Your task to perform on an android device: Search for bose soundlink on bestbuy.com, select the first entry, add it to the cart, then select checkout. Image 0: 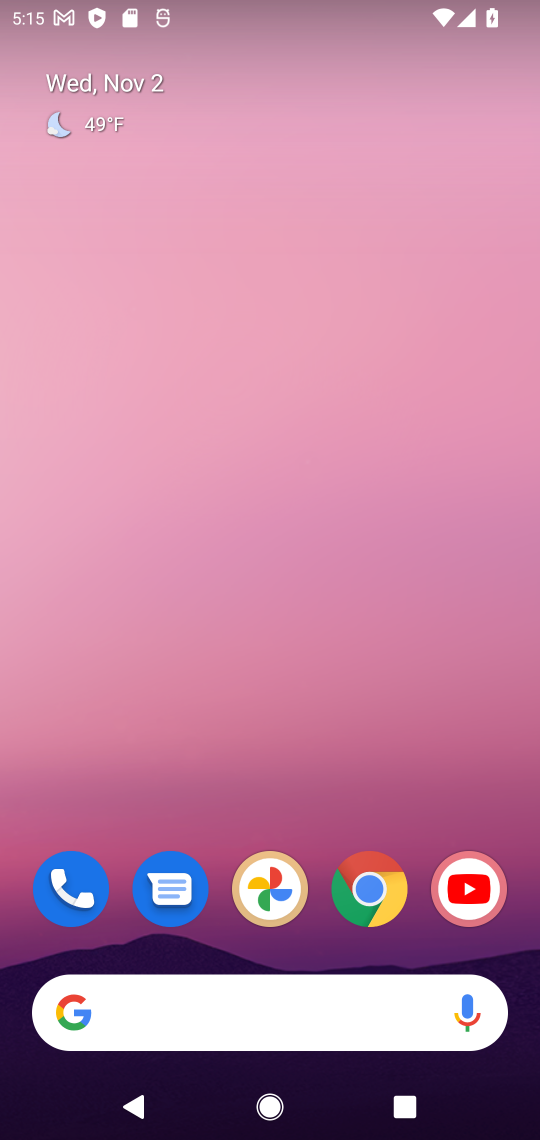
Step 0: click (369, 895)
Your task to perform on an android device: Search for bose soundlink on bestbuy.com, select the first entry, add it to the cart, then select checkout. Image 1: 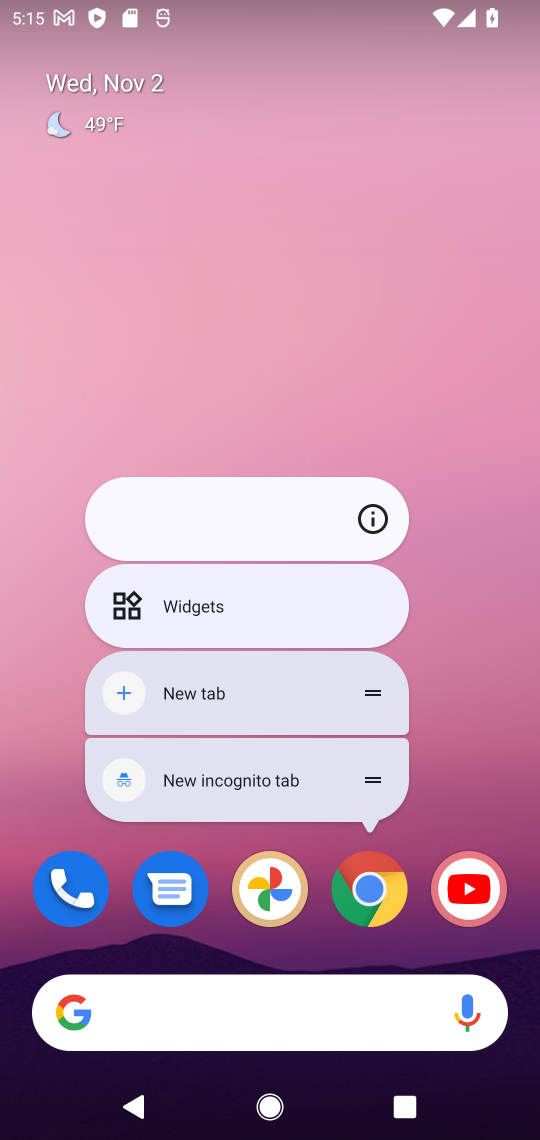
Step 1: click (379, 893)
Your task to perform on an android device: Search for bose soundlink on bestbuy.com, select the first entry, add it to the cart, then select checkout. Image 2: 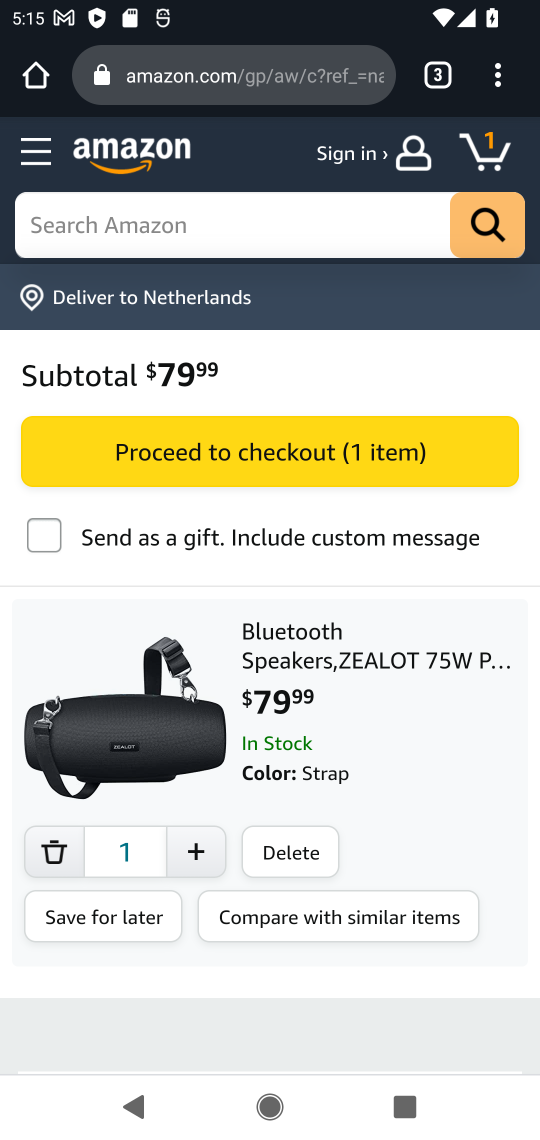
Step 2: click (276, 69)
Your task to perform on an android device: Search for bose soundlink on bestbuy.com, select the first entry, add it to the cart, then select checkout. Image 3: 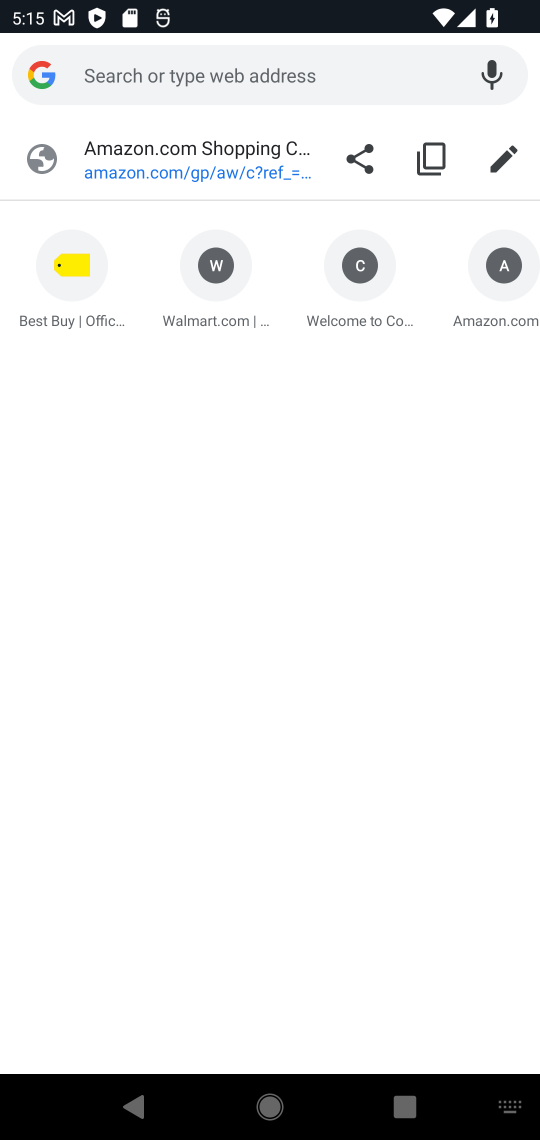
Step 3: click (67, 313)
Your task to perform on an android device: Search for bose soundlink on bestbuy.com, select the first entry, add it to the cart, then select checkout. Image 4: 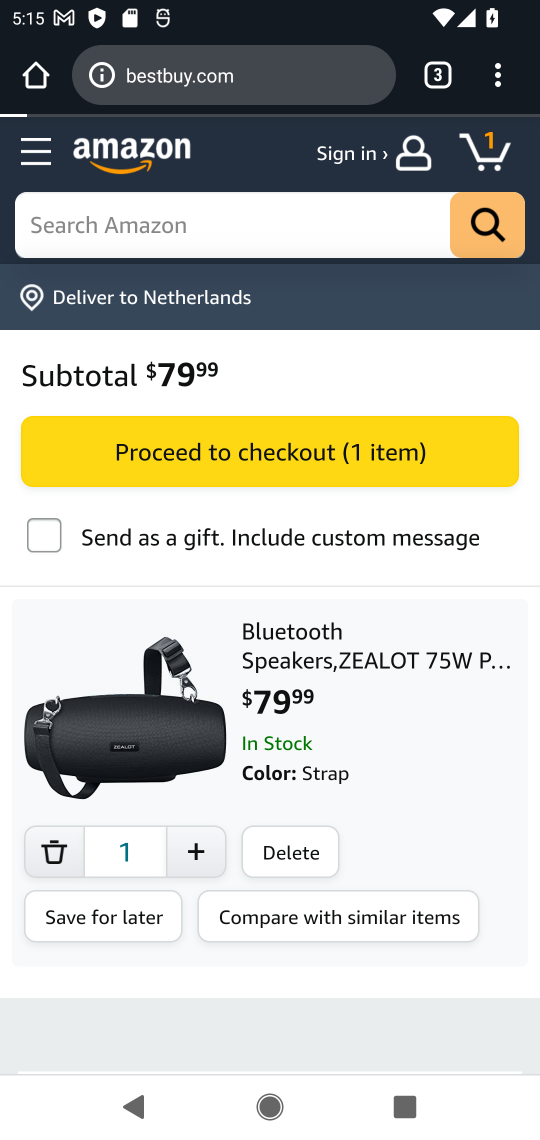
Step 4: click (310, 228)
Your task to perform on an android device: Search for bose soundlink on bestbuy.com, select the first entry, add it to the cart, then select checkout. Image 5: 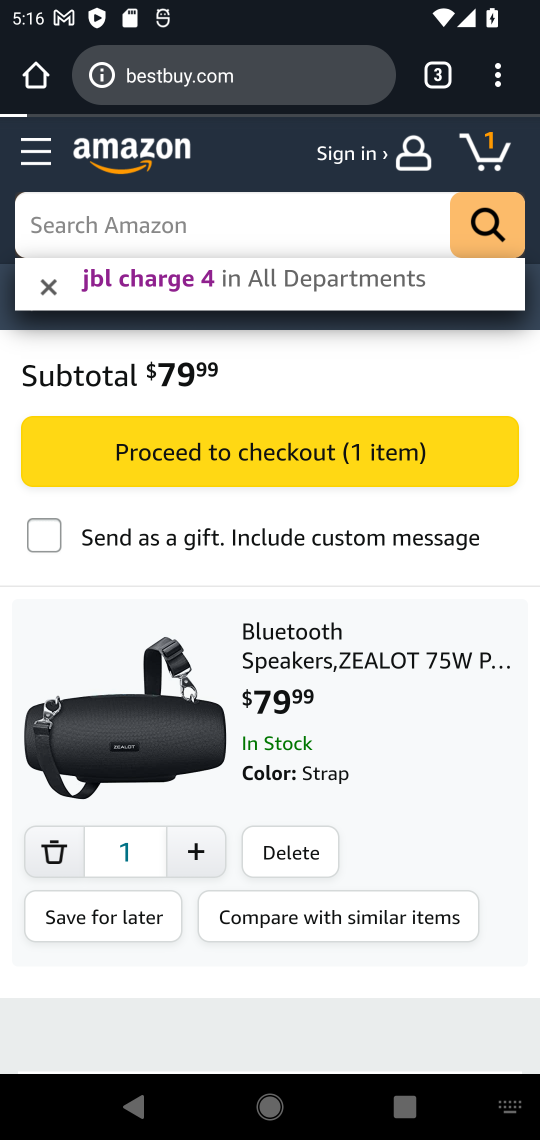
Step 5: click (255, 90)
Your task to perform on an android device: Search for bose soundlink on bestbuy.com, select the first entry, add it to the cart, then select checkout. Image 6: 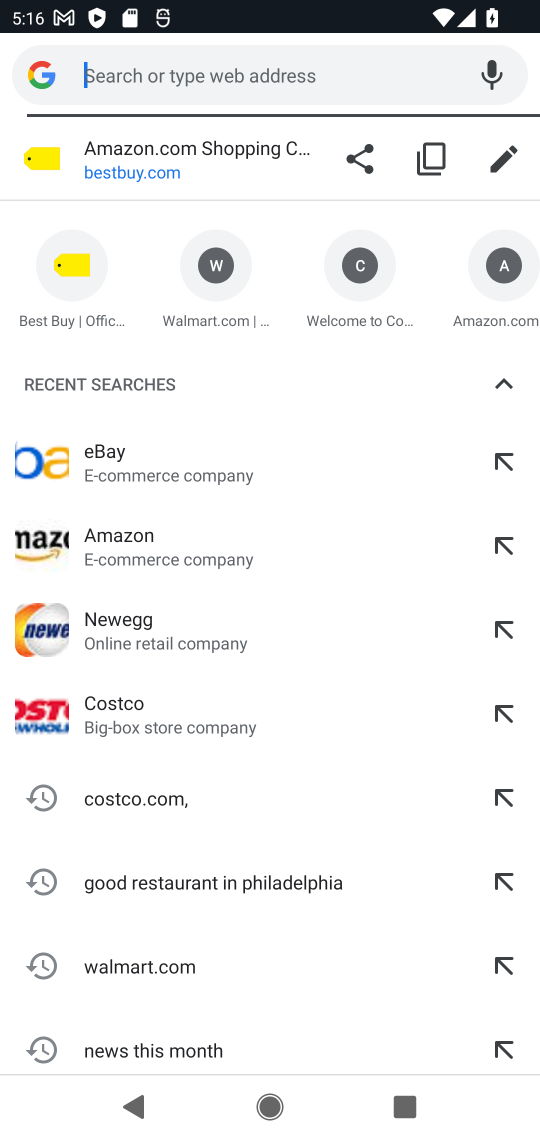
Step 6: click (71, 324)
Your task to perform on an android device: Search for bose soundlink on bestbuy.com, select the first entry, add it to the cart, then select checkout. Image 7: 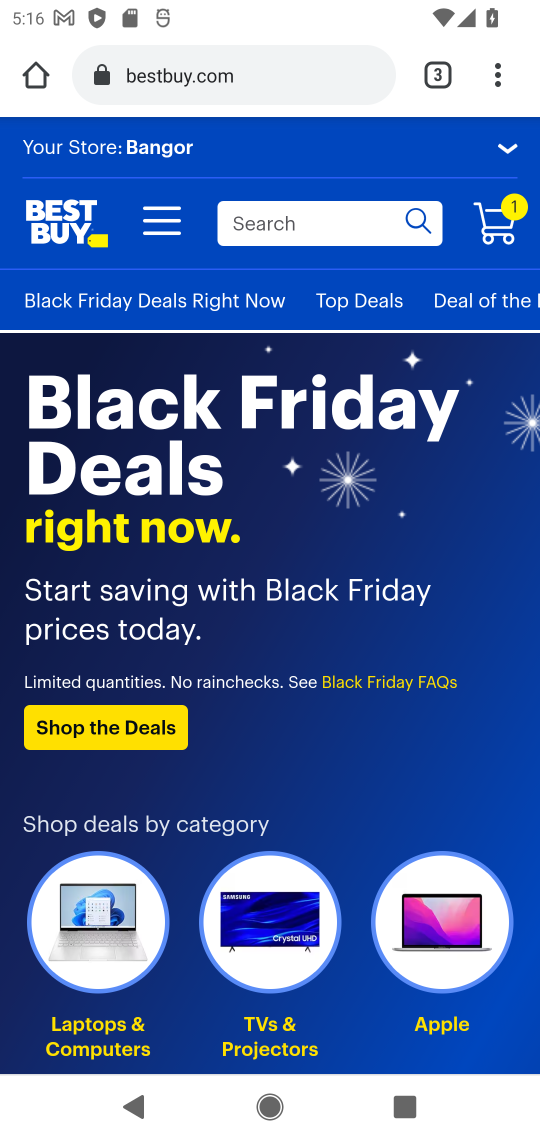
Step 7: click (300, 227)
Your task to perform on an android device: Search for bose soundlink on bestbuy.com, select the first entry, add it to the cart, then select checkout. Image 8: 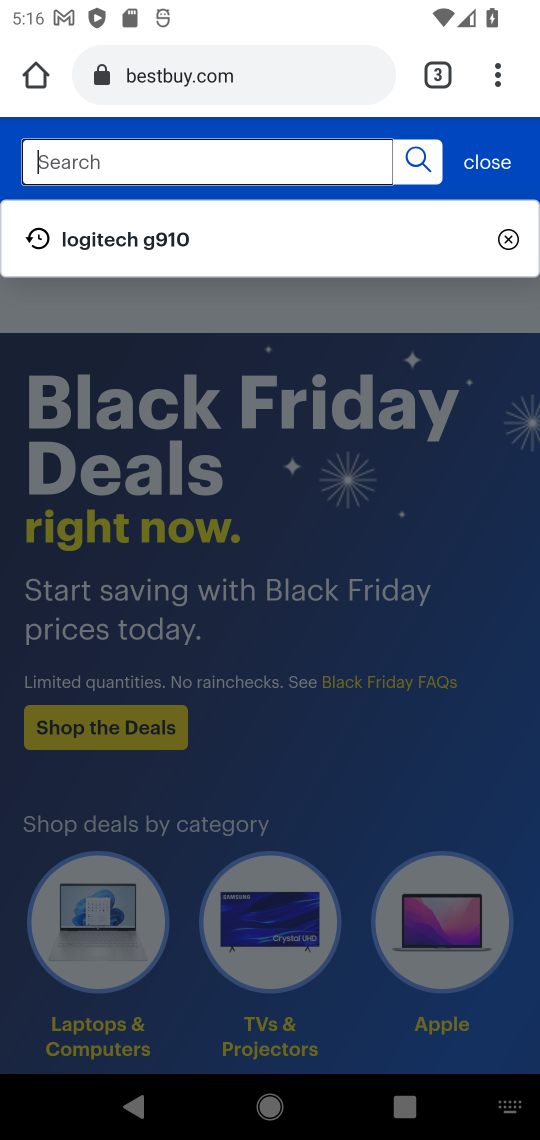
Step 8: type " bose soundlink "
Your task to perform on an android device: Search for bose soundlink on bestbuy.com, select the first entry, add it to the cart, then select checkout. Image 9: 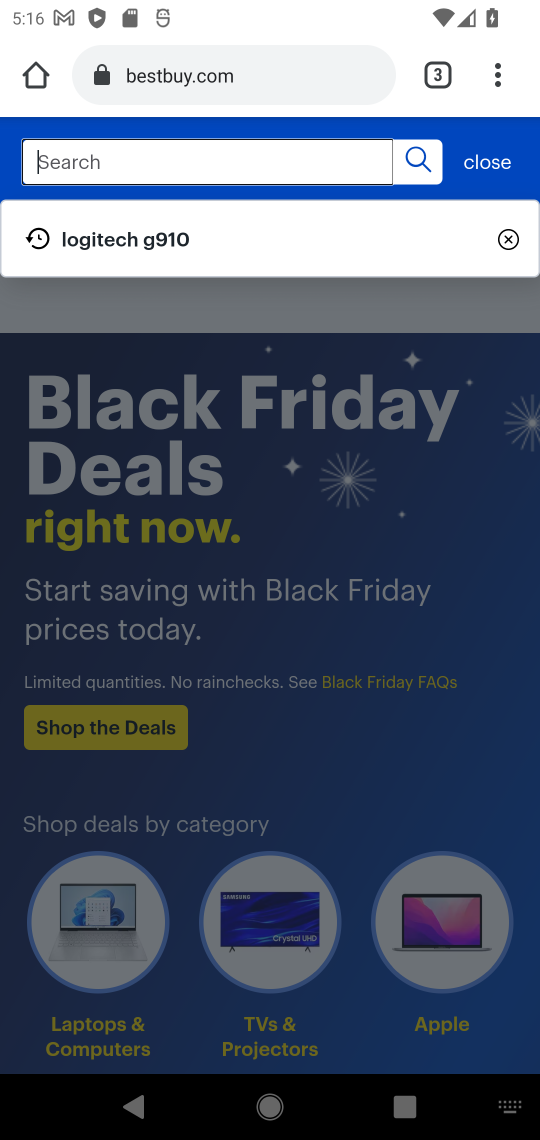
Step 9: press enter
Your task to perform on an android device: Search for bose soundlink on bestbuy.com, select the first entry, add it to the cart, then select checkout. Image 10: 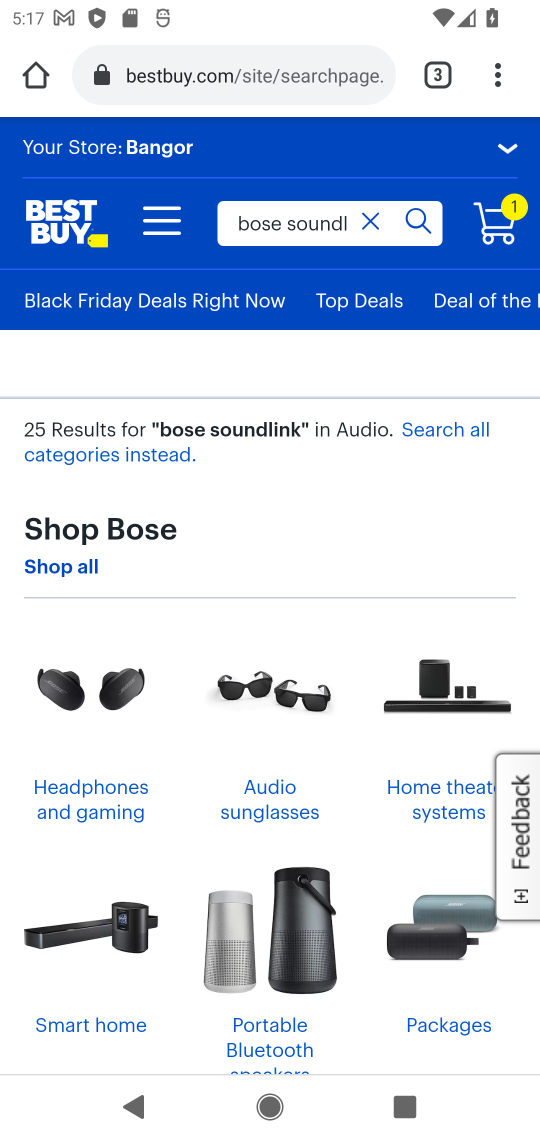
Step 10: drag from (133, 735) to (192, 628)
Your task to perform on an android device: Search for bose soundlink on bestbuy.com, select the first entry, add it to the cart, then select checkout. Image 11: 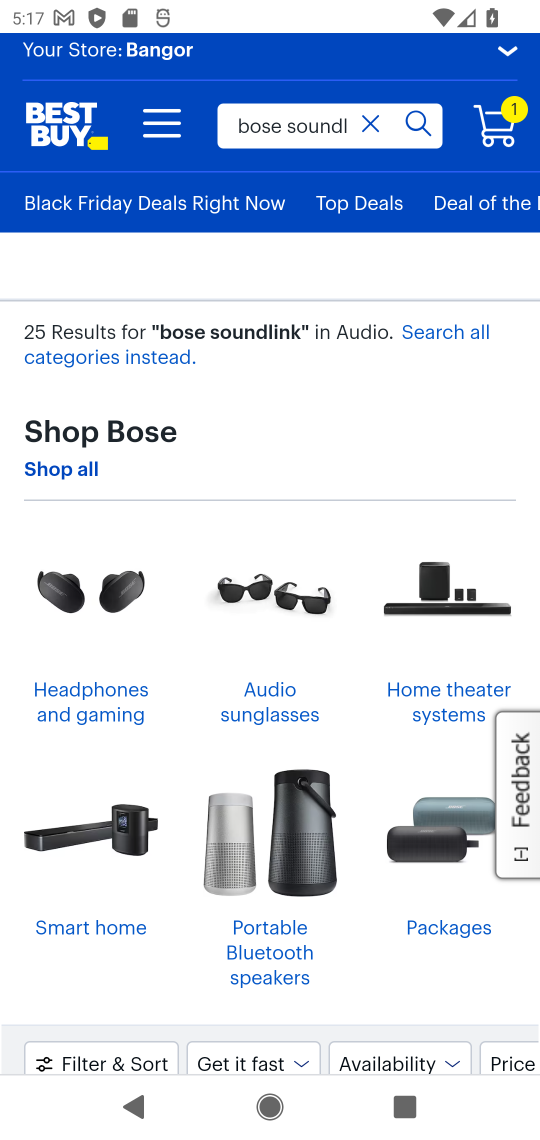
Step 11: click (47, 629)
Your task to perform on an android device: Search for bose soundlink on bestbuy.com, select the first entry, add it to the cart, then select checkout. Image 12: 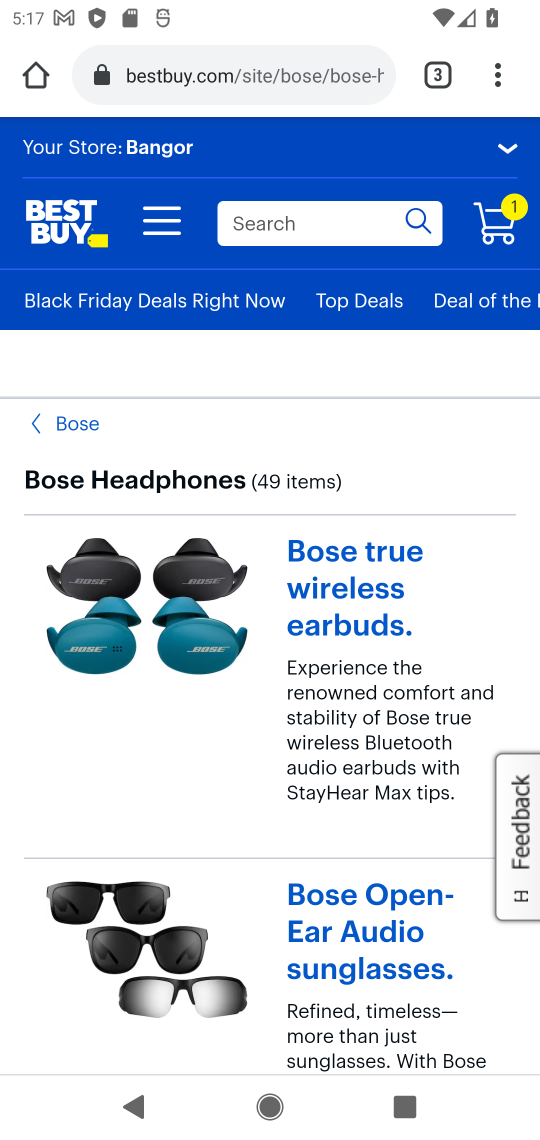
Step 12: drag from (232, 721) to (366, 437)
Your task to perform on an android device: Search for bose soundlink on bestbuy.com, select the first entry, add it to the cart, then select checkout. Image 13: 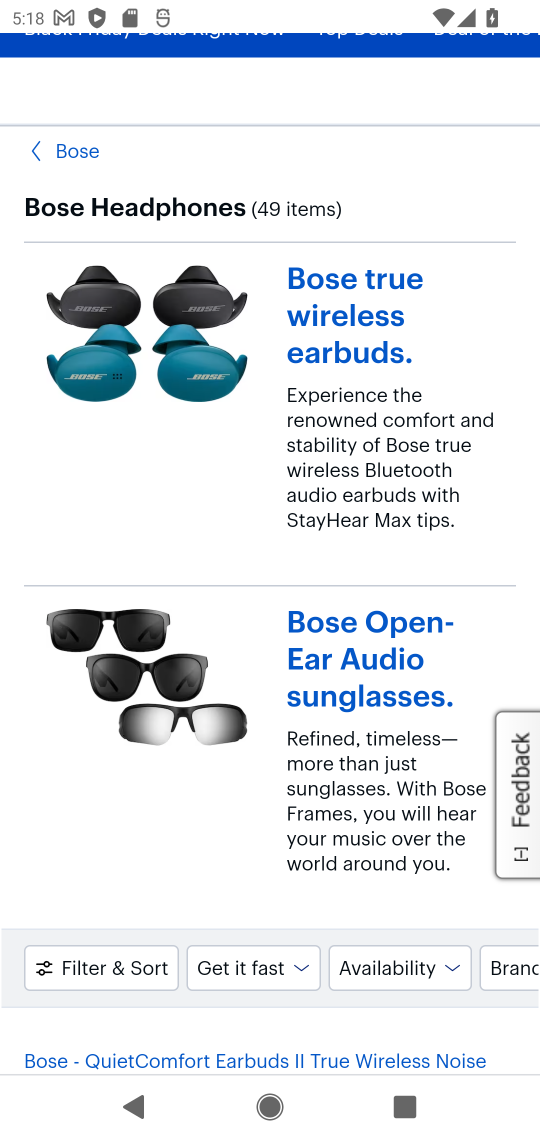
Step 13: click (369, 426)
Your task to perform on an android device: Search for bose soundlink on bestbuy.com, select the first entry, add it to the cart, then select checkout. Image 14: 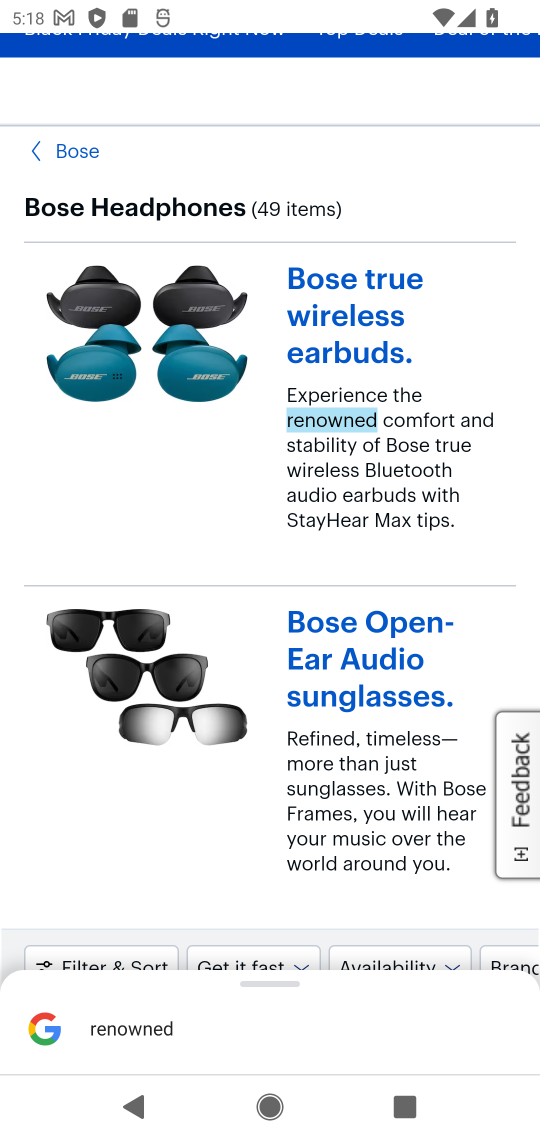
Step 14: click (201, 342)
Your task to perform on an android device: Search for bose soundlink on bestbuy.com, select the first entry, add it to the cart, then select checkout. Image 15: 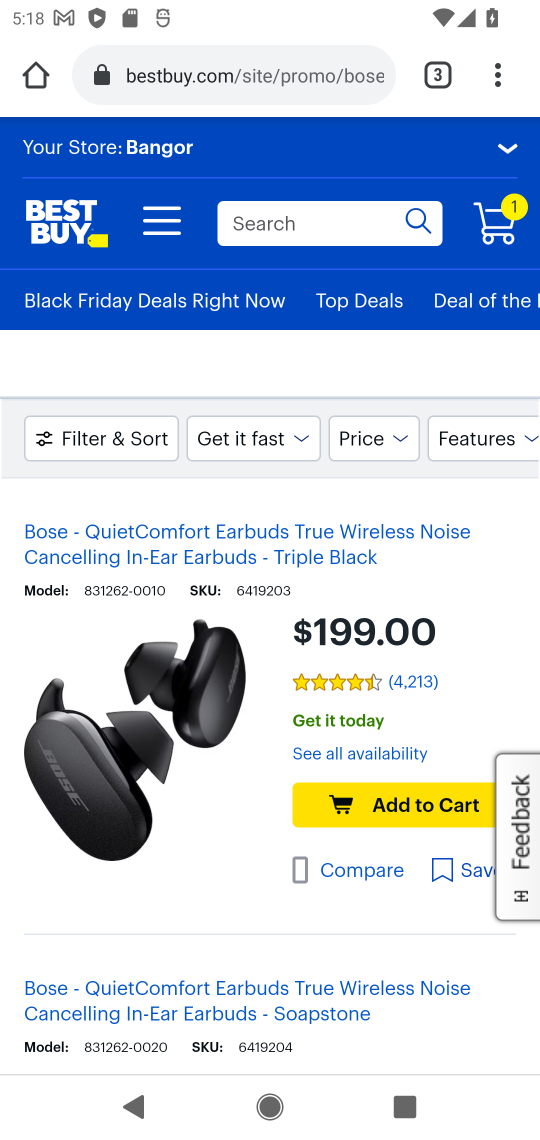
Step 15: click (438, 805)
Your task to perform on an android device: Search for bose soundlink on bestbuy.com, select the first entry, add it to the cart, then select checkout. Image 16: 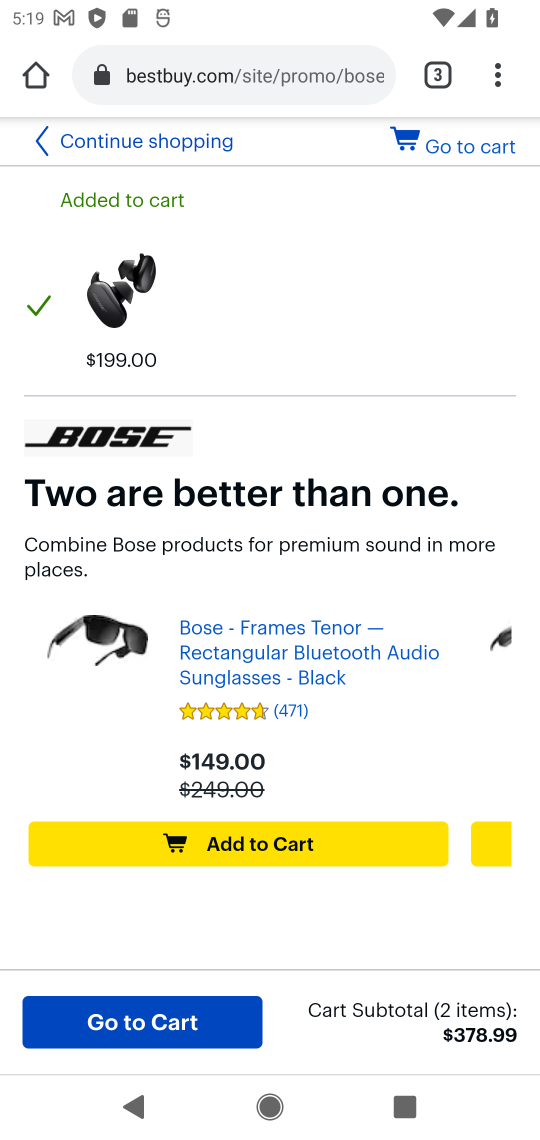
Step 16: click (169, 1030)
Your task to perform on an android device: Search for bose soundlink on bestbuy.com, select the first entry, add it to the cart, then select checkout. Image 17: 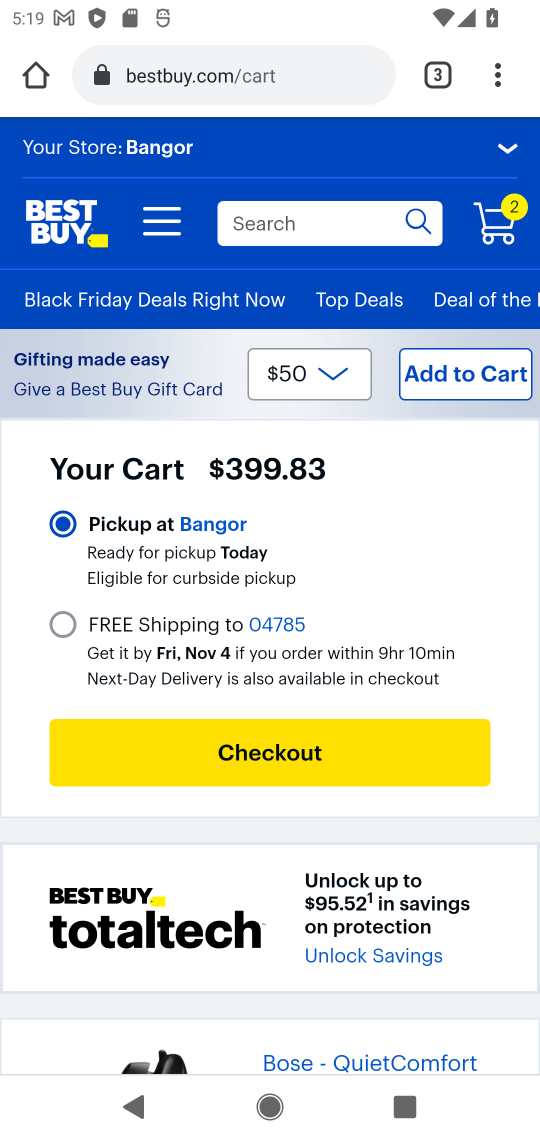
Step 17: click (257, 759)
Your task to perform on an android device: Search for bose soundlink on bestbuy.com, select the first entry, add it to the cart, then select checkout. Image 18: 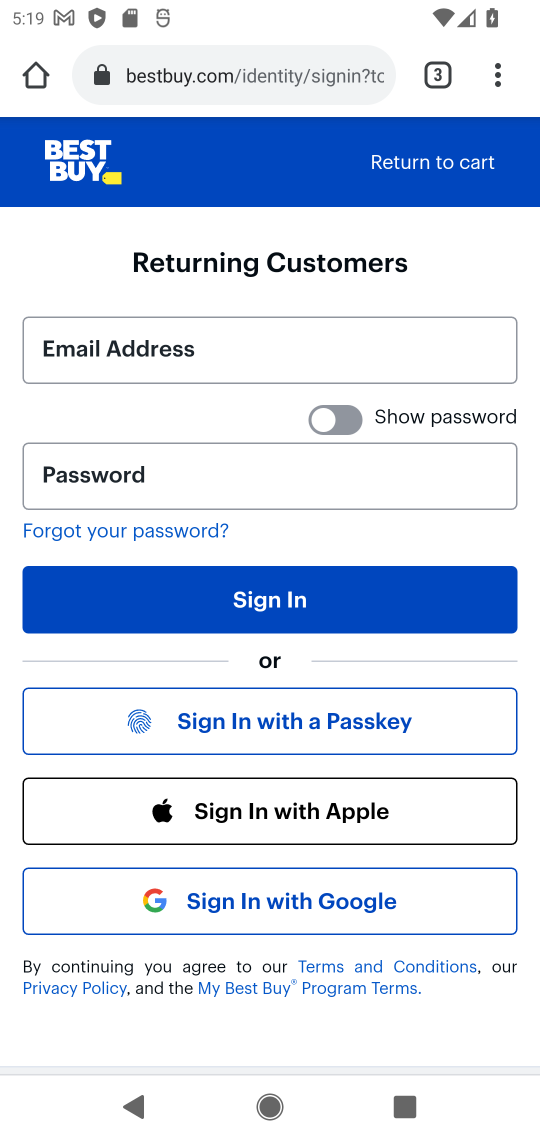
Step 18: task complete